Your task to perform on an android device: Open eBay Image 0: 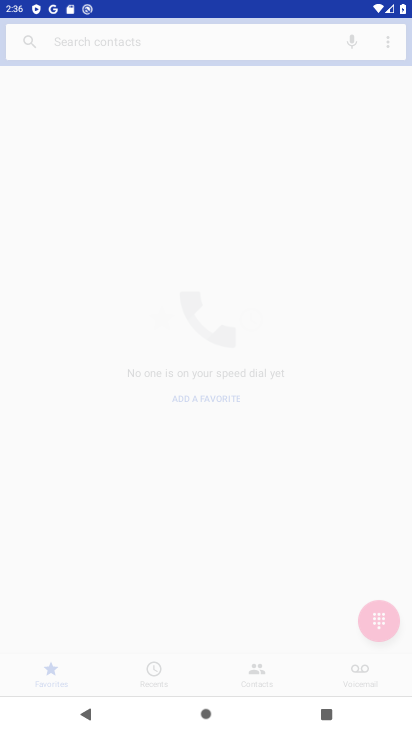
Step 0: drag from (10, 301) to (381, 312)
Your task to perform on an android device: Open eBay Image 1: 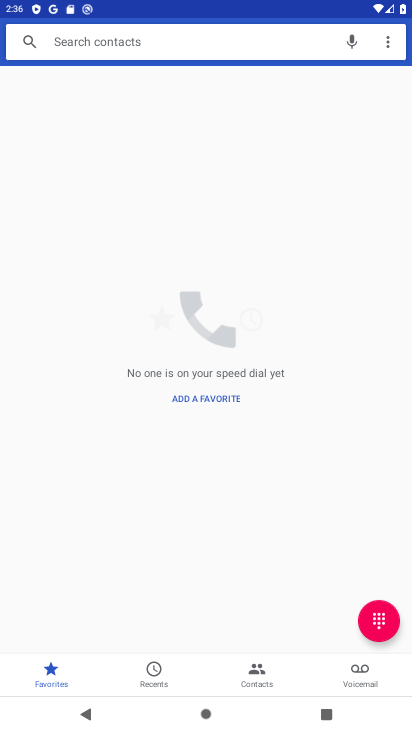
Step 1: press home button
Your task to perform on an android device: Open eBay Image 2: 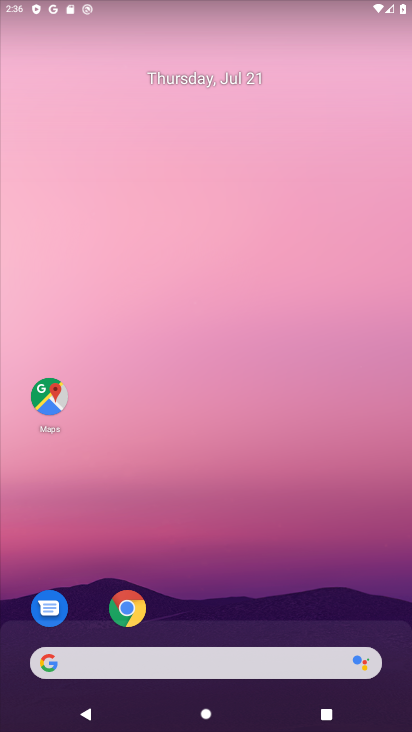
Step 2: click (120, 606)
Your task to perform on an android device: Open eBay Image 3: 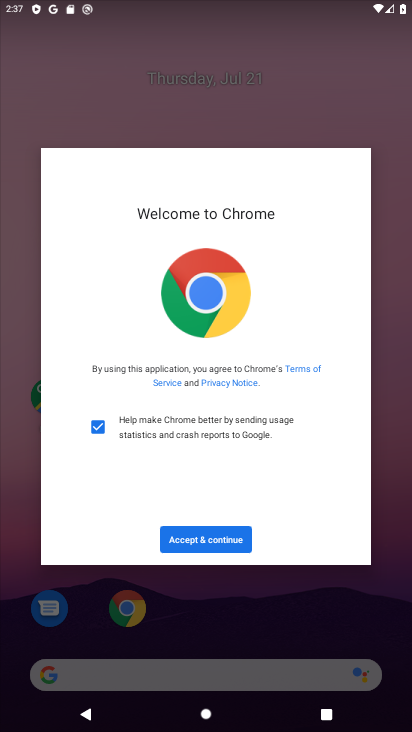
Step 3: click (204, 536)
Your task to perform on an android device: Open eBay Image 4: 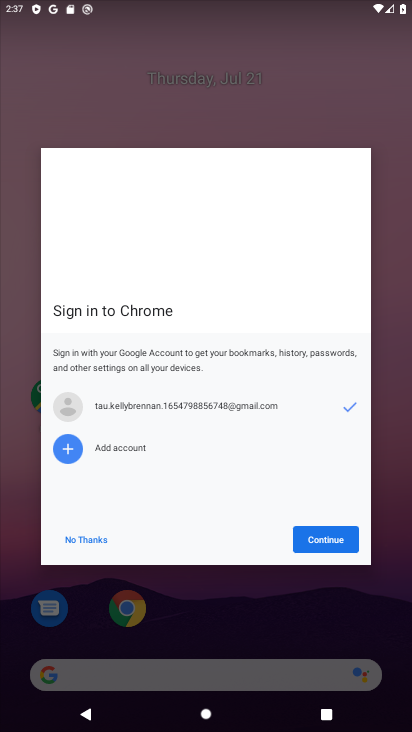
Step 4: click (319, 536)
Your task to perform on an android device: Open eBay Image 5: 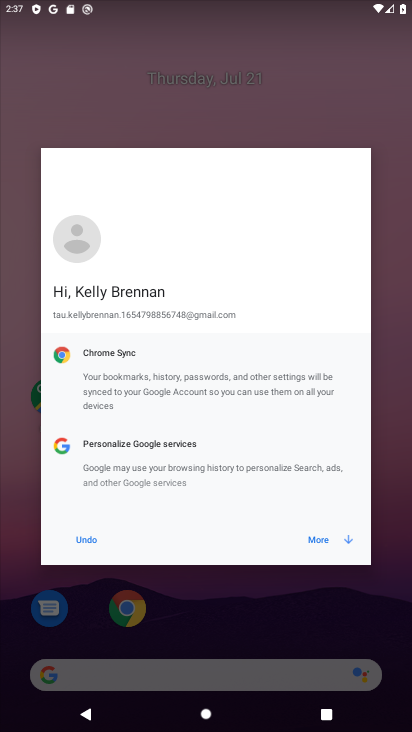
Step 5: click (315, 540)
Your task to perform on an android device: Open eBay Image 6: 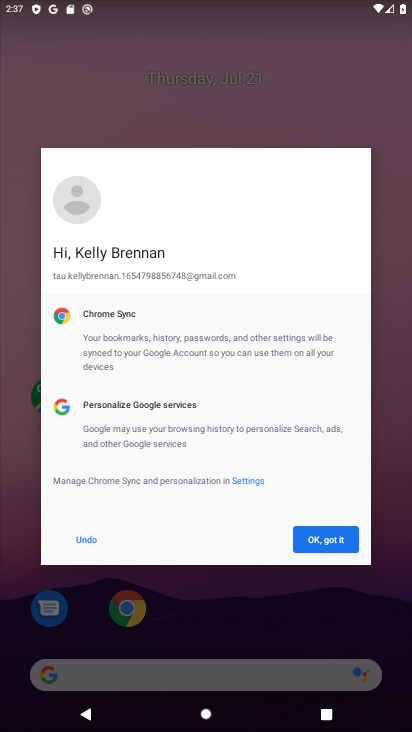
Step 6: click (321, 540)
Your task to perform on an android device: Open eBay Image 7: 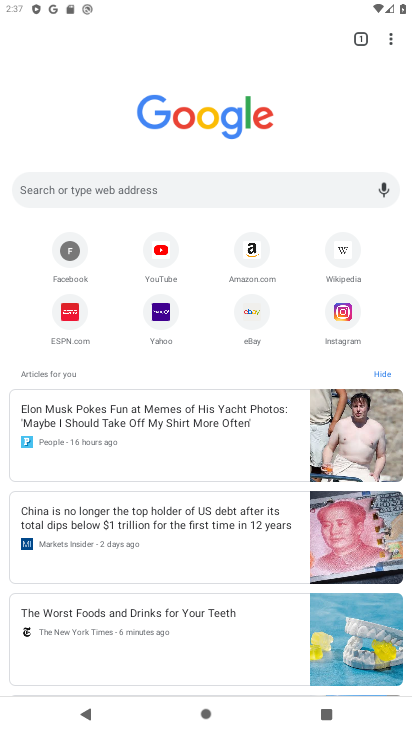
Step 7: click (249, 303)
Your task to perform on an android device: Open eBay Image 8: 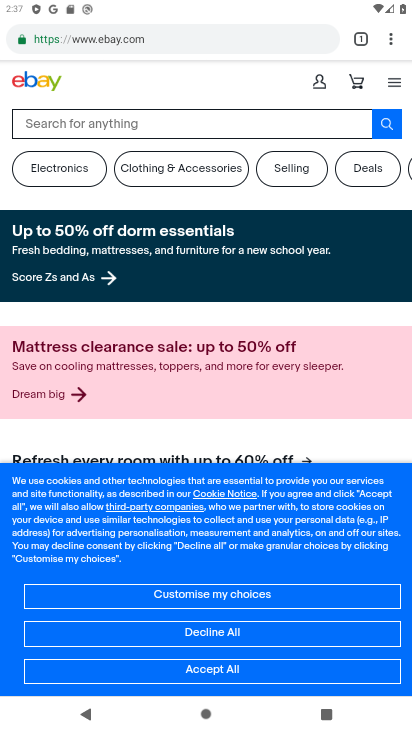
Step 8: click (215, 664)
Your task to perform on an android device: Open eBay Image 9: 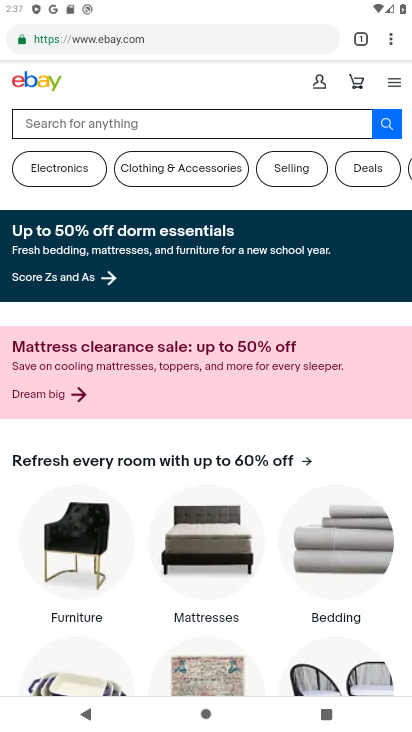
Step 9: task complete